Your task to perform on an android device: delete a single message in the gmail app Image 0: 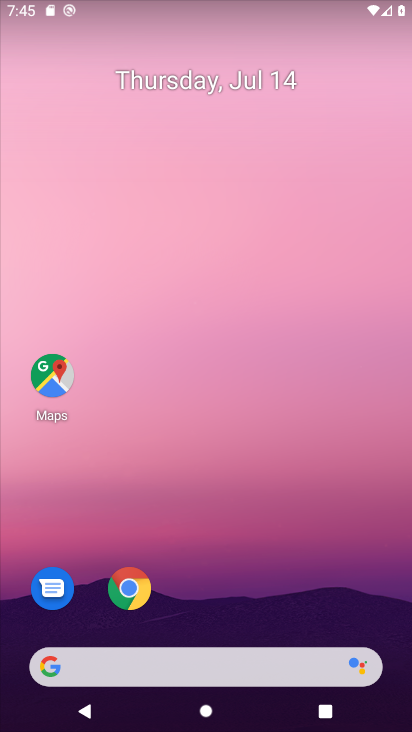
Step 0: drag from (226, 627) to (173, 234)
Your task to perform on an android device: delete a single message in the gmail app Image 1: 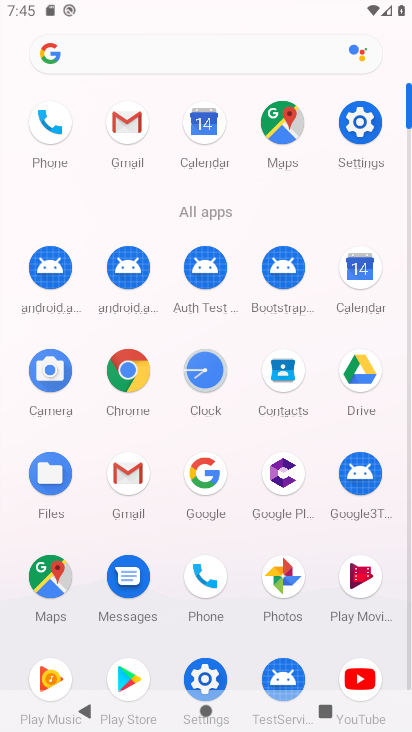
Step 1: click (140, 467)
Your task to perform on an android device: delete a single message in the gmail app Image 2: 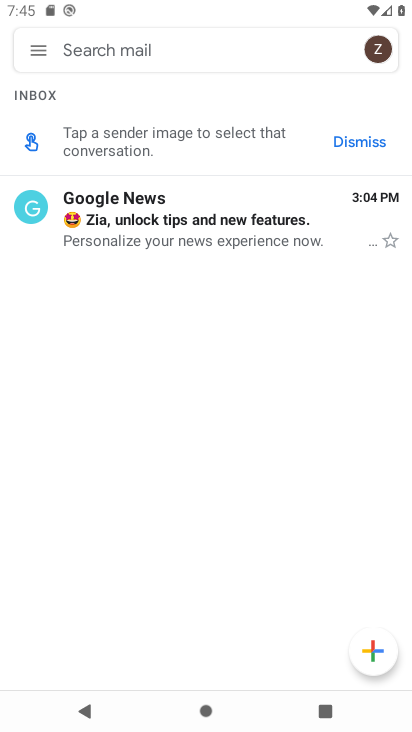
Step 2: click (136, 230)
Your task to perform on an android device: delete a single message in the gmail app Image 3: 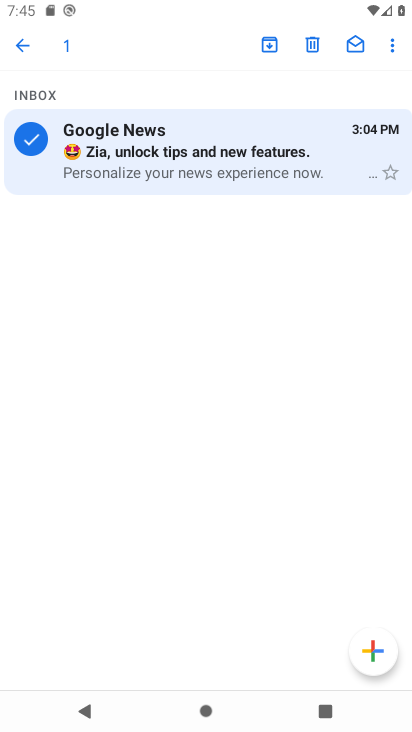
Step 3: click (305, 51)
Your task to perform on an android device: delete a single message in the gmail app Image 4: 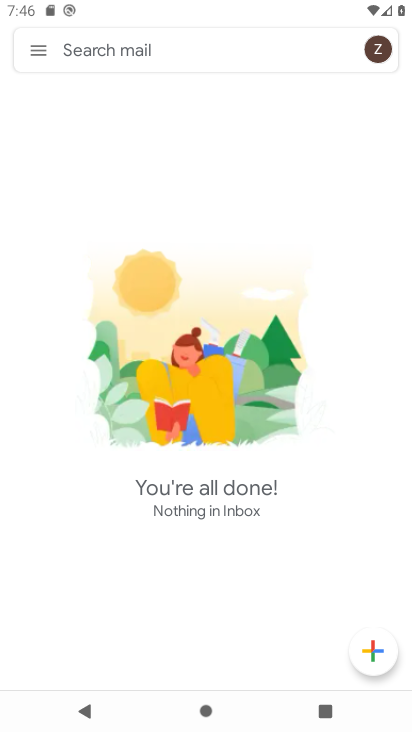
Step 4: task complete